Your task to perform on an android device: turn off improve location accuracy Image 0: 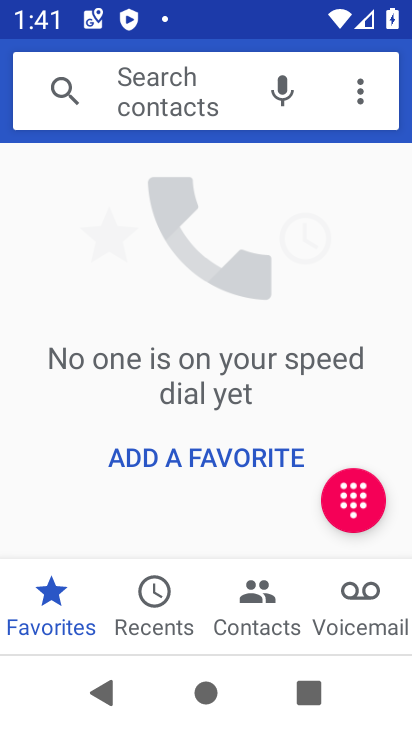
Step 0: press home button
Your task to perform on an android device: turn off improve location accuracy Image 1: 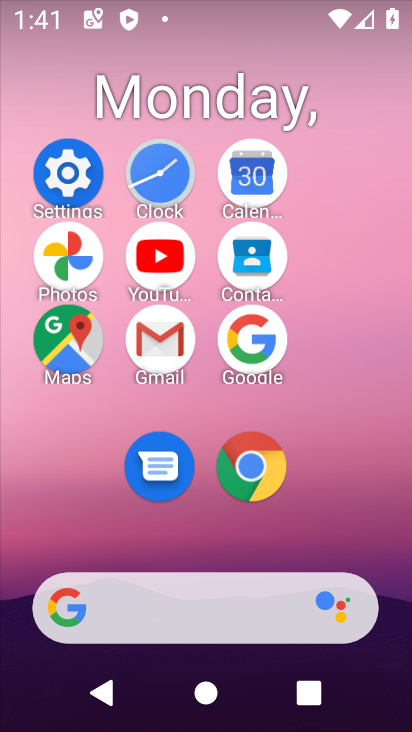
Step 1: click (87, 160)
Your task to perform on an android device: turn off improve location accuracy Image 2: 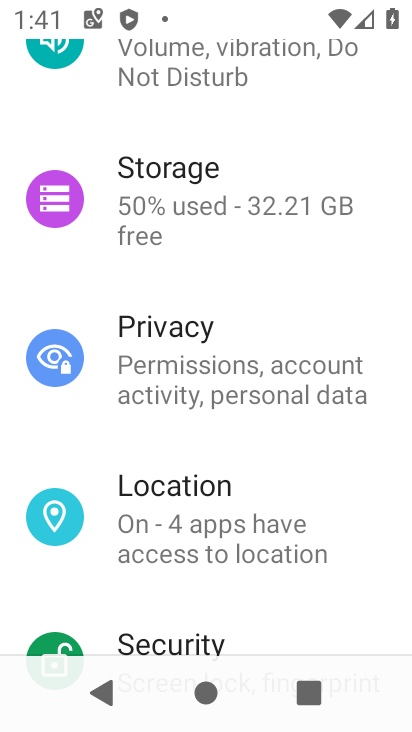
Step 2: click (250, 508)
Your task to perform on an android device: turn off improve location accuracy Image 3: 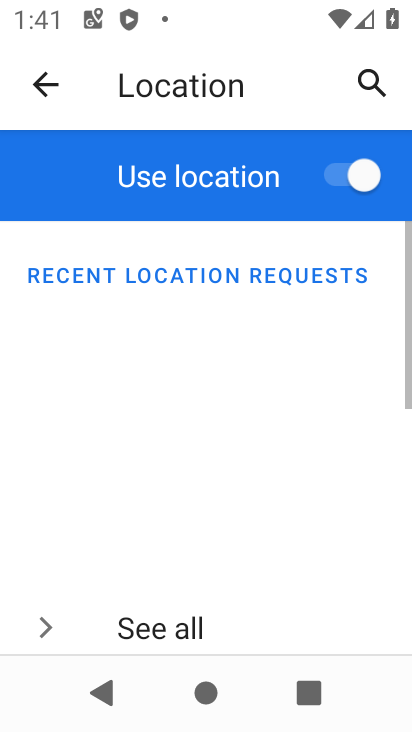
Step 3: drag from (248, 567) to (250, 130)
Your task to perform on an android device: turn off improve location accuracy Image 4: 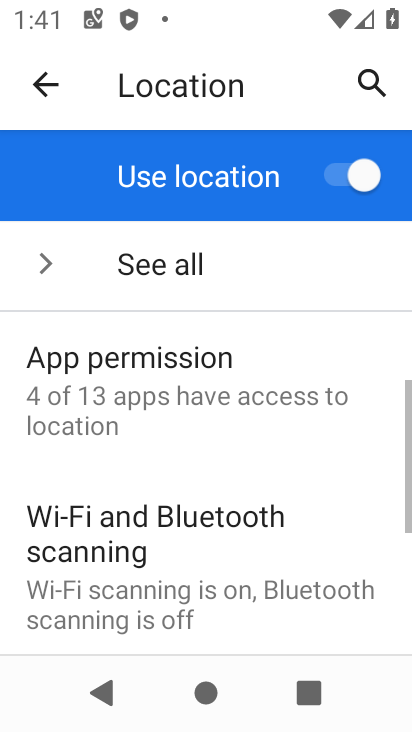
Step 4: drag from (270, 508) to (225, 108)
Your task to perform on an android device: turn off improve location accuracy Image 5: 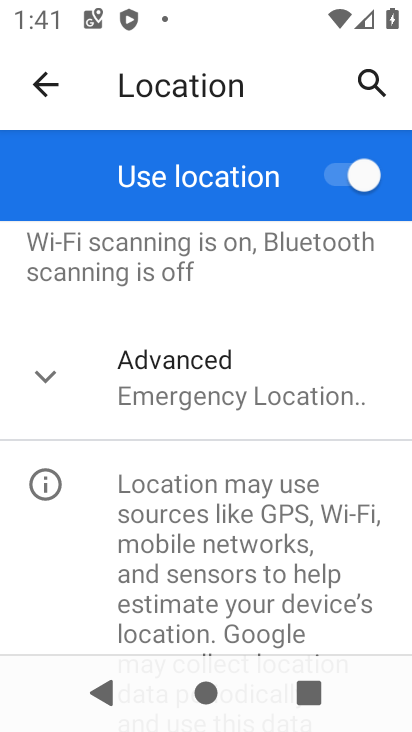
Step 5: click (192, 403)
Your task to perform on an android device: turn off improve location accuracy Image 6: 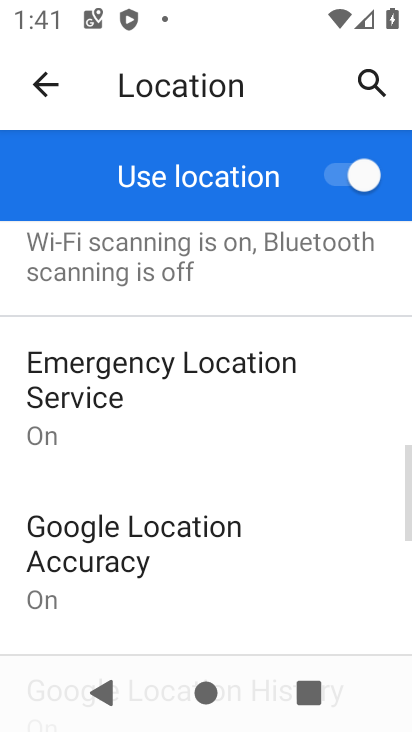
Step 6: click (210, 532)
Your task to perform on an android device: turn off improve location accuracy Image 7: 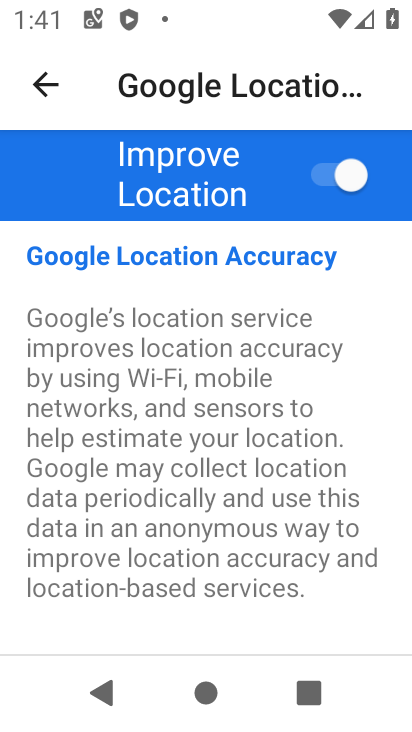
Step 7: click (359, 173)
Your task to perform on an android device: turn off improve location accuracy Image 8: 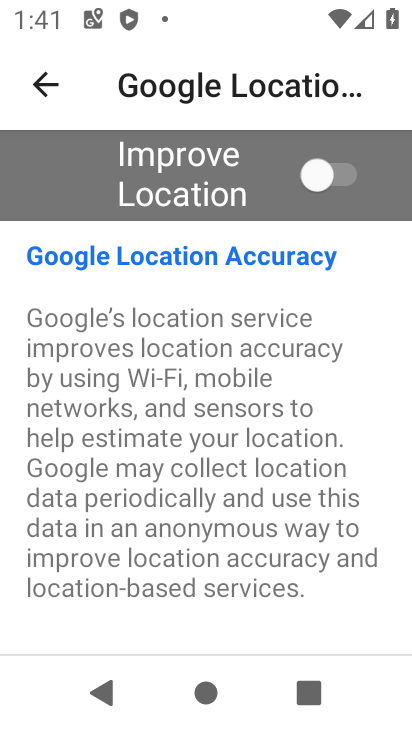
Step 8: task complete